Your task to perform on an android device: Open display settings Image 0: 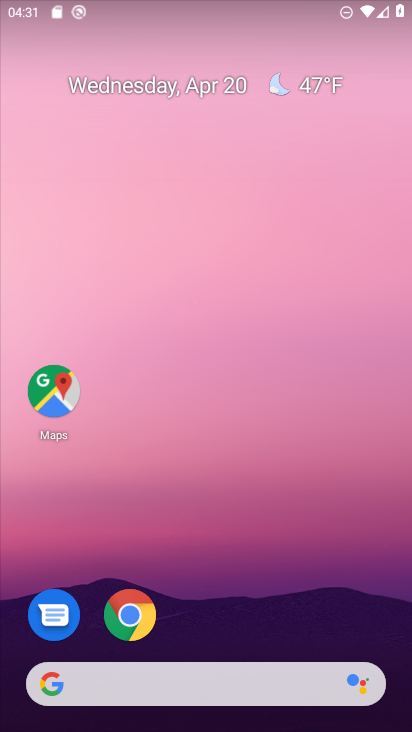
Step 0: drag from (233, 628) to (255, 61)
Your task to perform on an android device: Open display settings Image 1: 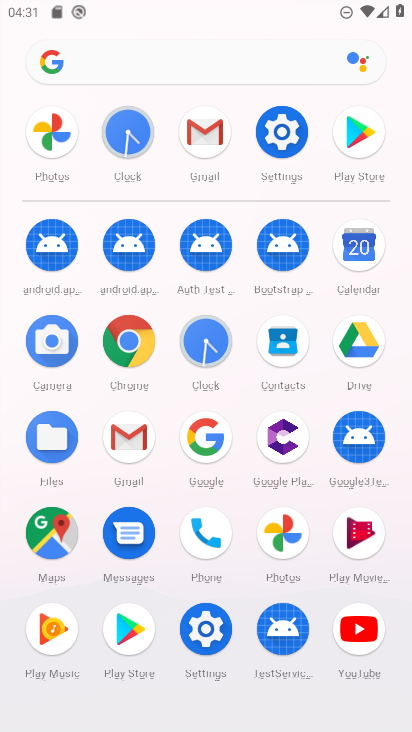
Step 1: click (289, 129)
Your task to perform on an android device: Open display settings Image 2: 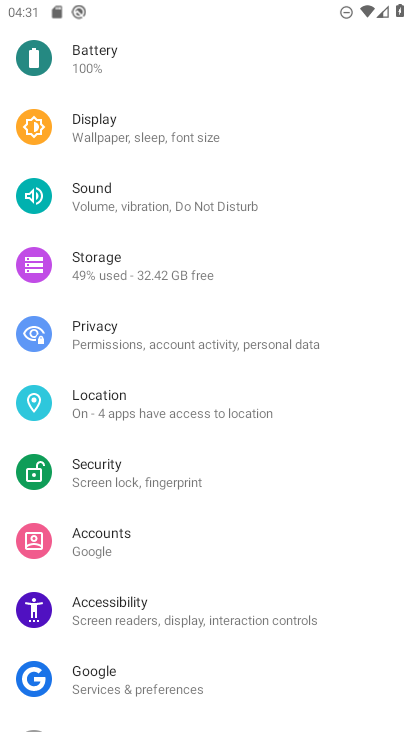
Step 2: click (143, 134)
Your task to perform on an android device: Open display settings Image 3: 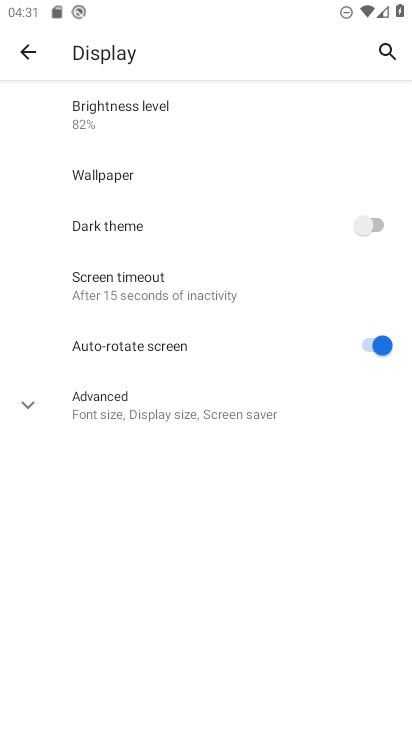
Step 3: task complete